Your task to perform on an android device: empty trash in the gmail app Image 0: 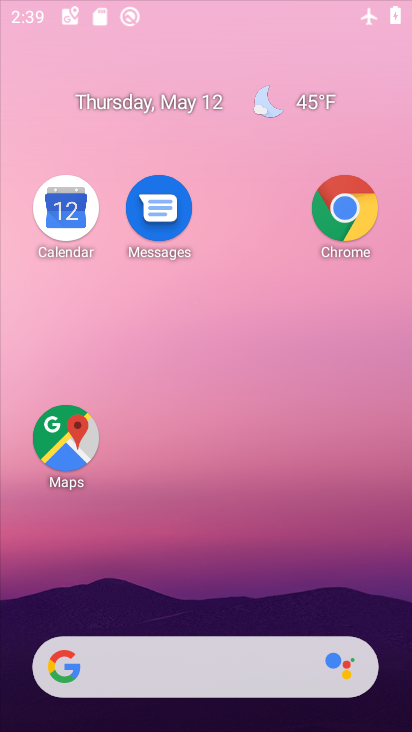
Step 0: click (288, 190)
Your task to perform on an android device: empty trash in the gmail app Image 1: 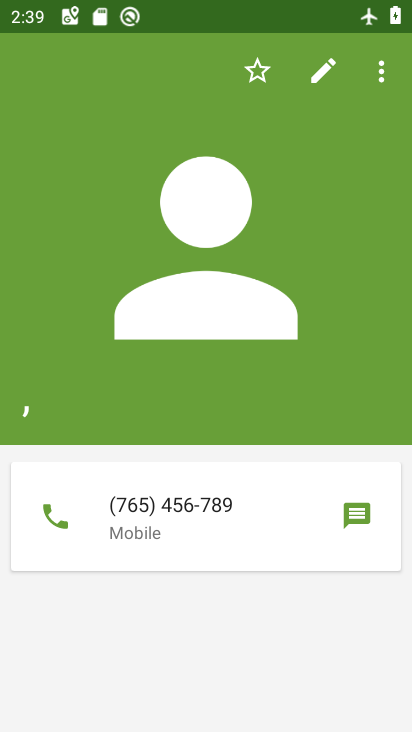
Step 1: press home button
Your task to perform on an android device: empty trash in the gmail app Image 2: 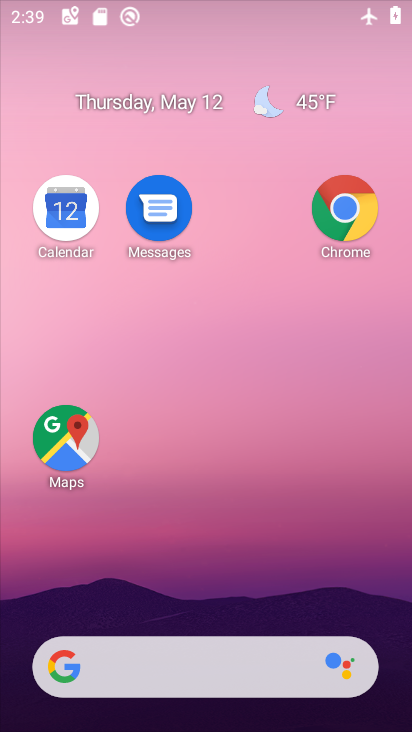
Step 2: drag from (204, 521) to (214, 284)
Your task to perform on an android device: empty trash in the gmail app Image 3: 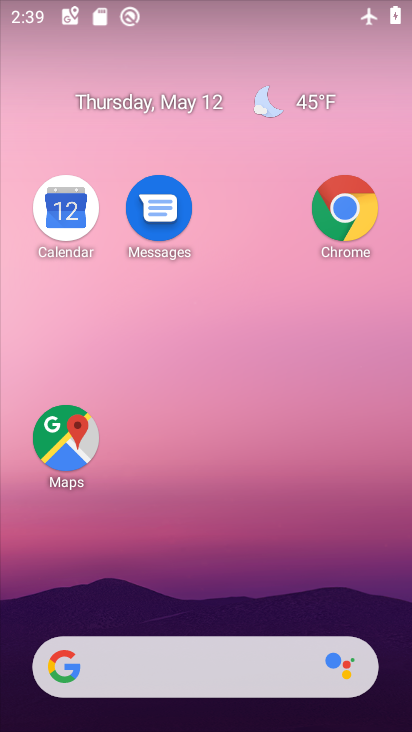
Step 3: drag from (221, 622) to (228, 227)
Your task to perform on an android device: empty trash in the gmail app Image 4: 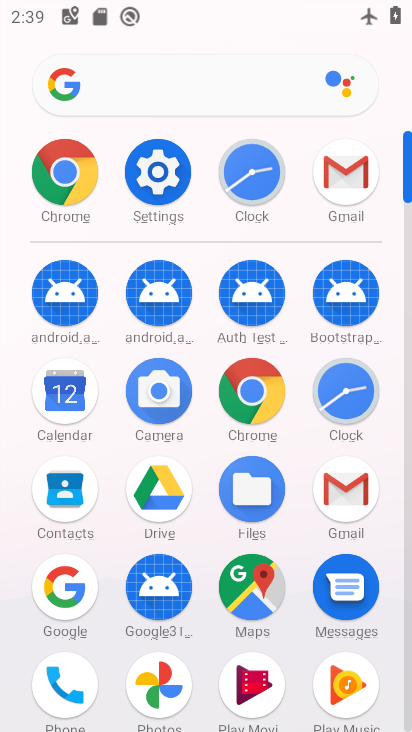
Step 4: click (350, 484)
Your task to perform on an android device: empty trash in the gmail app Image 5: 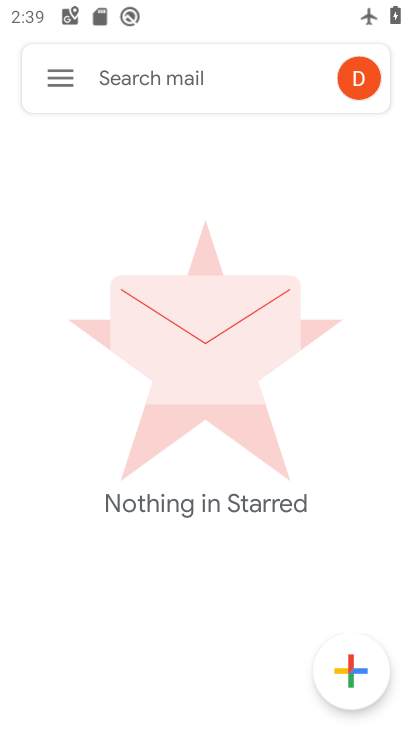
Step 5: drag from (237, 650) to (231, 184)
Your task to perform on an android device: empty trash in the gmail app Image 6: 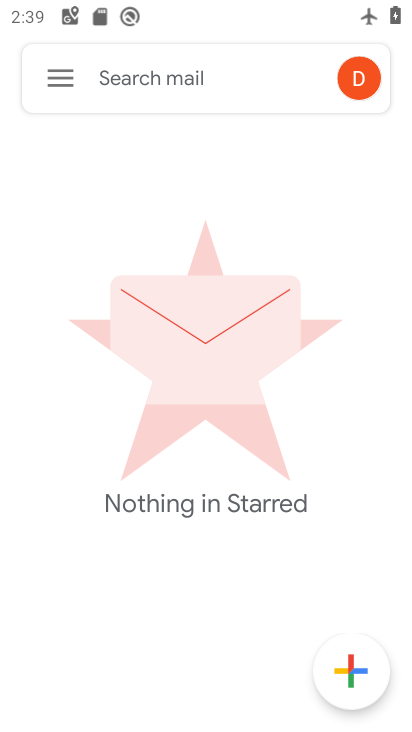
Step 6: press home button
Your task to perform on an android device: empty trash in the gmail app Image 7: 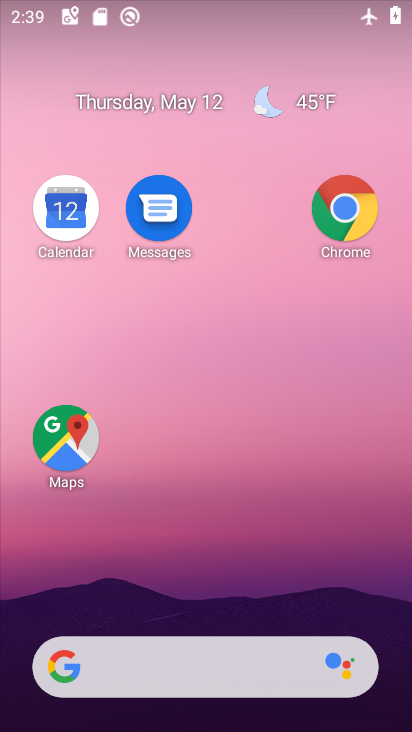
Step 7: drag from (186, 608) to (208, 252)
Your task to perform on an android device: empty trash in the gmail app Image 8: 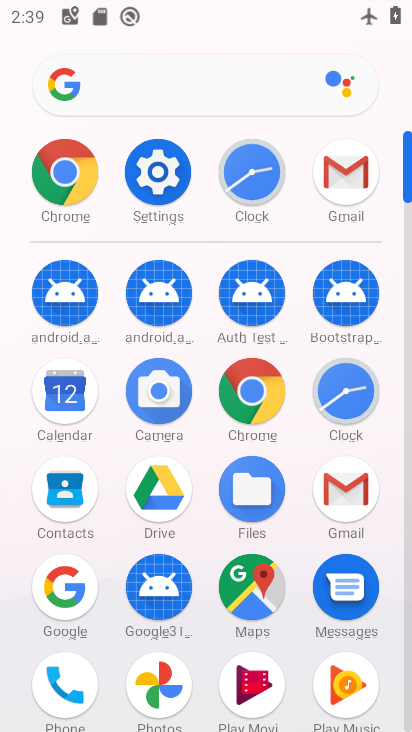
Step 8: click (340, 164)
Your task to perform on an android device: empty trash in the gmail app Image 9: 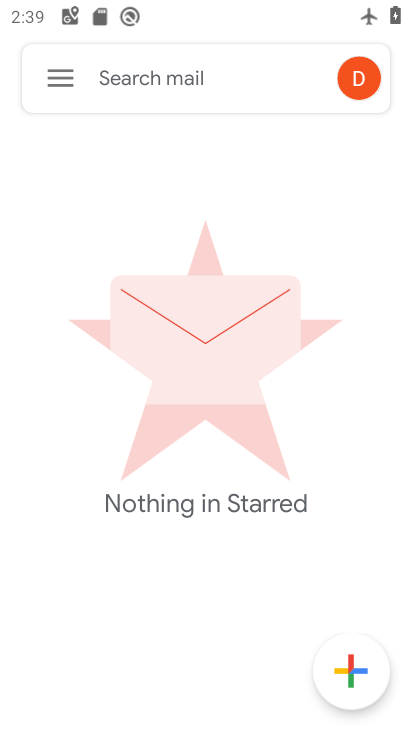
Step 9: drag from (260, 629) to (251, 262)
Your task to perform on an android device: empty trash in the gmail app Image 10: 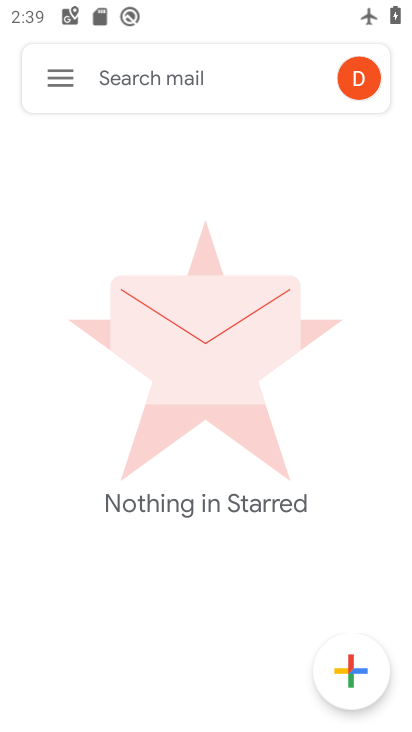
Step 10: click (45, 74)
Your task to perform on an android device: empty trash in the gmail app Image 11: 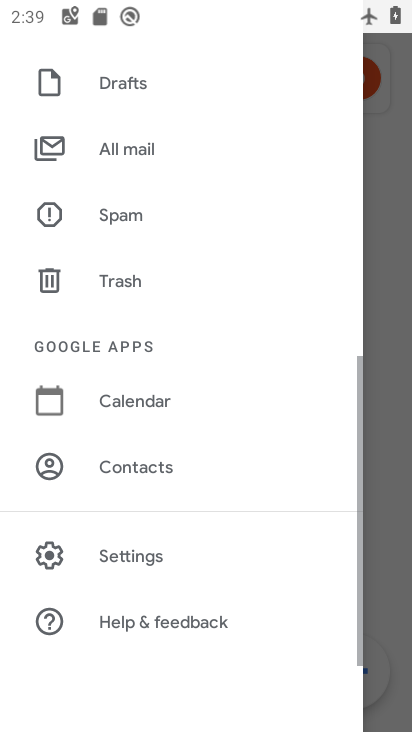
Step 11: click (159, 293)
Your task to perform on an android device: empty trash in the gmail app Image 12: 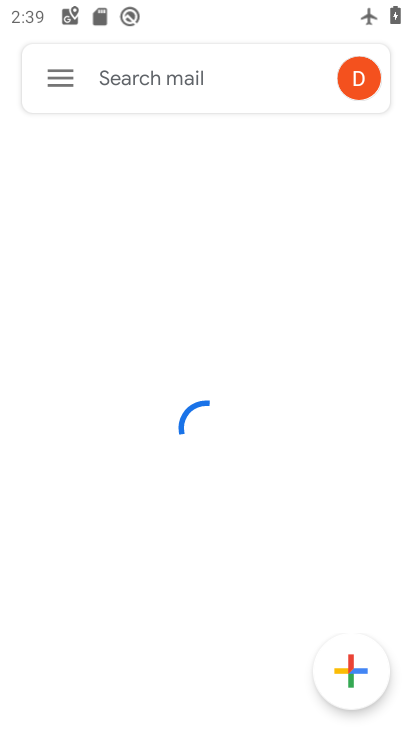
Step 12: task complete